Your task to perform on an android device: allow cookies in the chrome app Image 0: 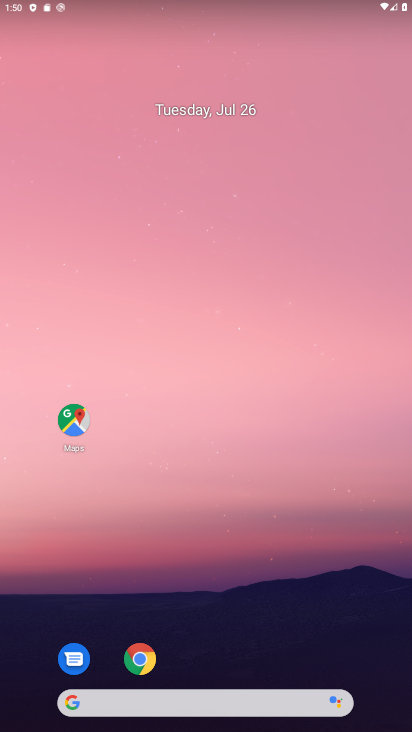
Step 0: click (136, 664)
Your task to perform on an android device: allow cookies in the chrome app Image 1: 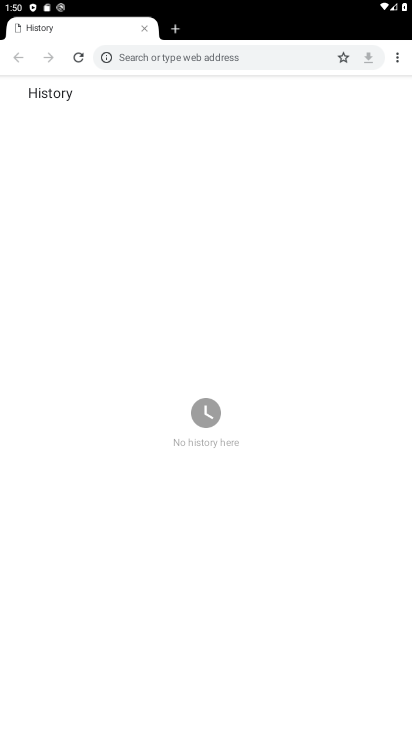
Step 1: click (399, 53)
Your task to perform on an android device: allow cookies in the chrome app Image 2: 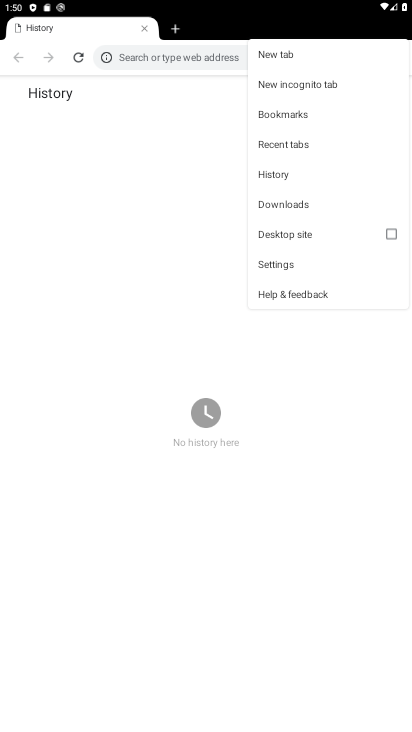
Step 2: click (281, 262)
Your task to perform on an android device: allow cookies in the chrome app Image 3: 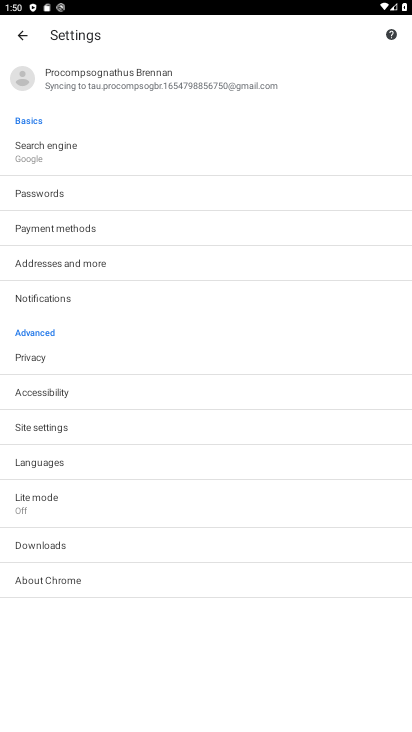
Step 3: click (105, 419)
Your task to perform on an android device: allow cookies in the chrome app Image 4: 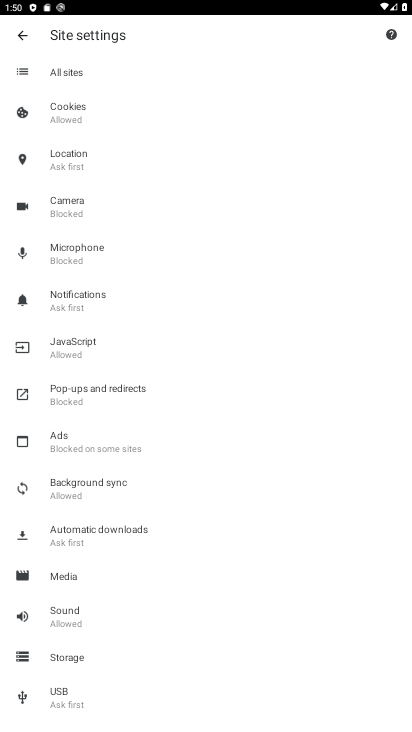
Step 4: click (93, 107)
Your task to perform on an android device: allow cookies in the chrome app Image 5: 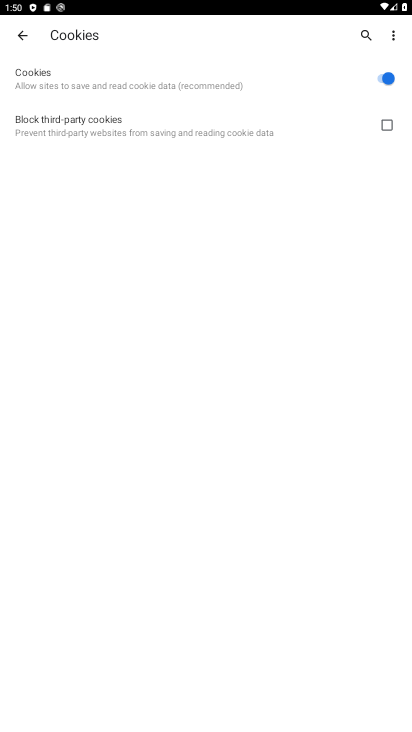
Step 5: task complete